Your task to perform on an android device: change text size in settings app Image 0: 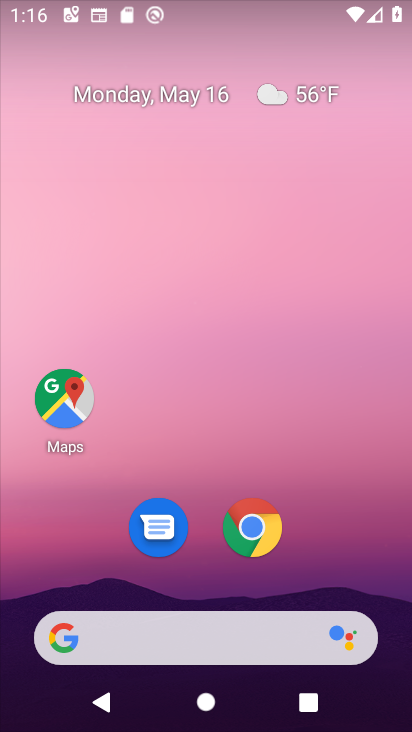
Step 0: drag from (199, 633) to (104, 3)
Your task to perform on an android device: change text size in settings app Image 1: 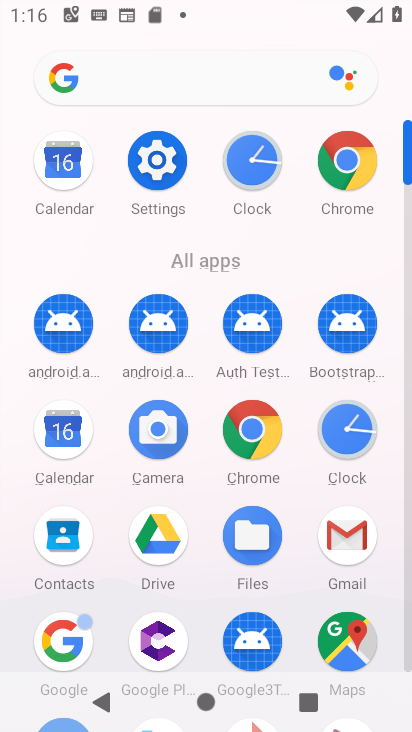
Step 1: click (169, 148)
Your task to perform on an android device: change text size in settings app Image 2: 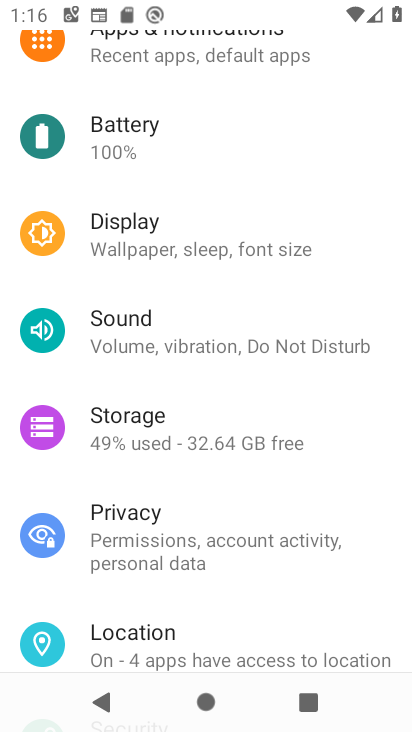
Step 2: click (128, 243)
Your task to perform on an android device: change text size in settings app Image 3: 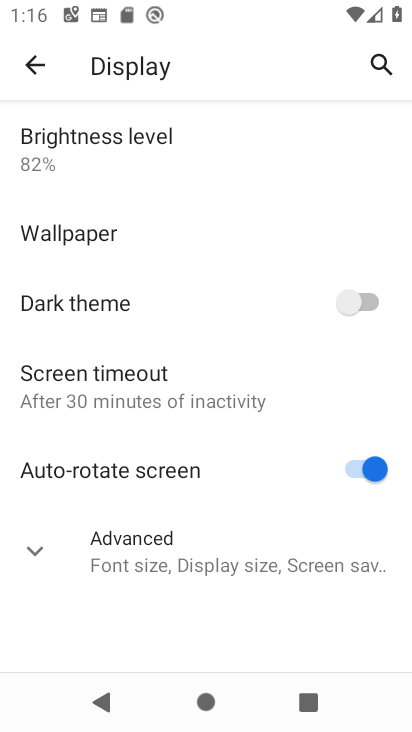
Step 3: click (112, 544)
Your task to perform on an android device: change text size in settings app Image 4: 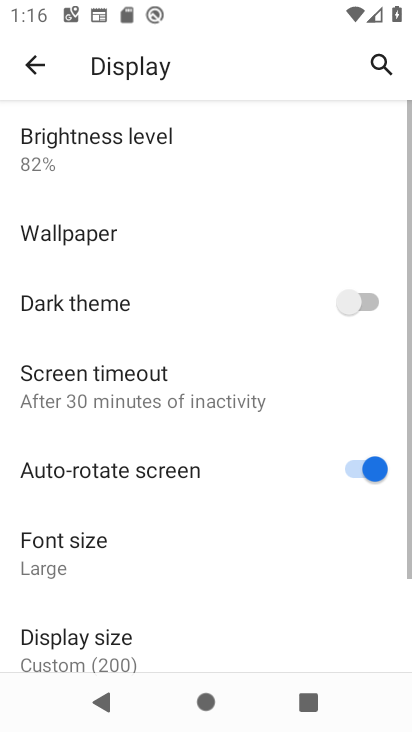
Step 4: drag from (117, 592) to (84, 92)
Your task to perform on an android device: change text size in settings app Image 5: 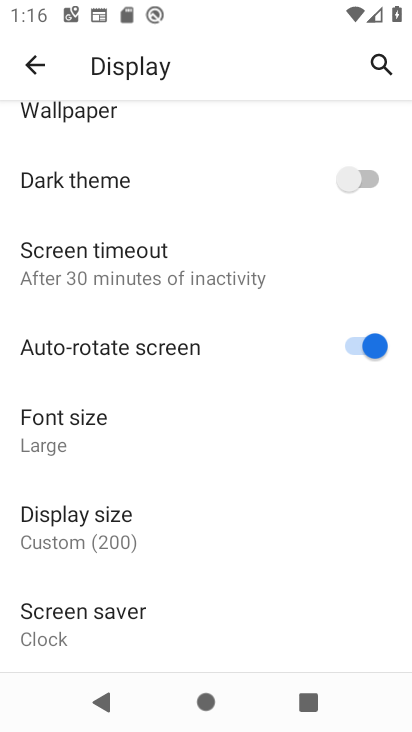
Step 5: click (94, 416)
Your task to perform on an android device: change text size in settings app Image 6: 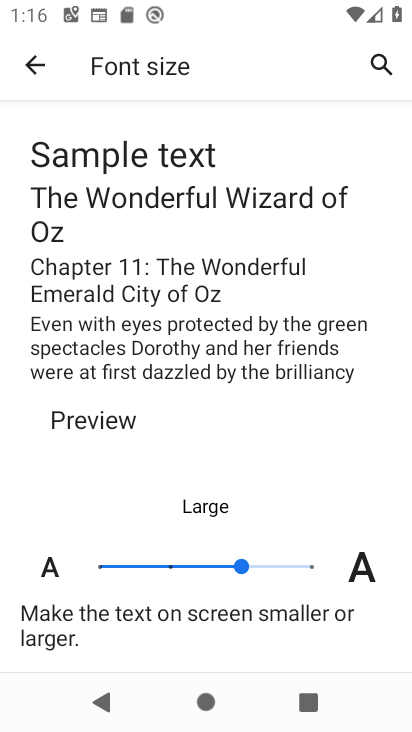
Step 6: click (167, 567)
Your task to perform on an android device: change text size in settings app Image 7: 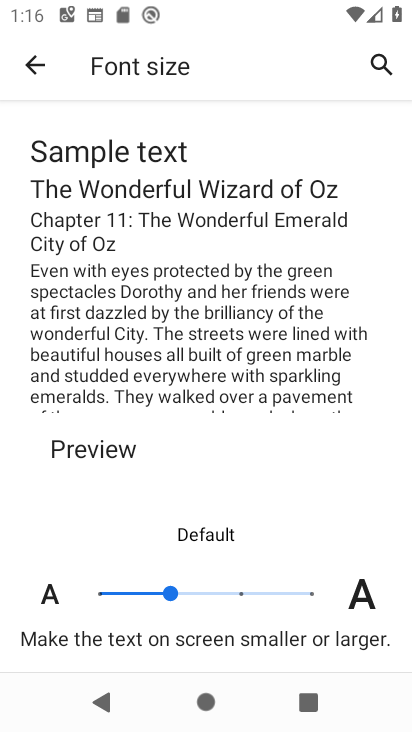
Step 7: task complete